Your task to perform on an android device: Search for Italian restaurants on Maps Image 0: 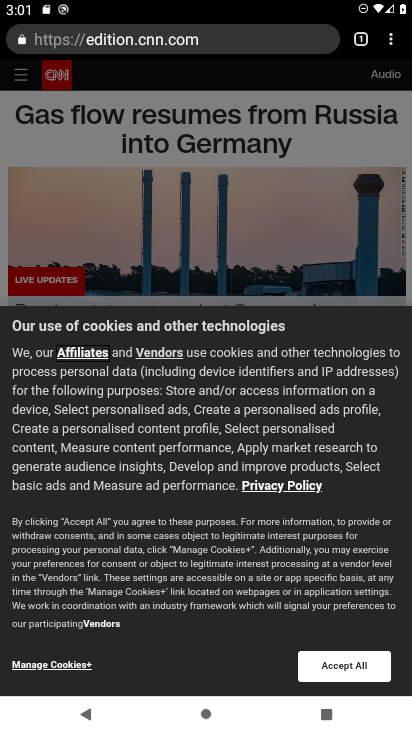
Step 0: press home button
Your task to perform on an android device: Search for Italian restaurants on Maps Image 1: 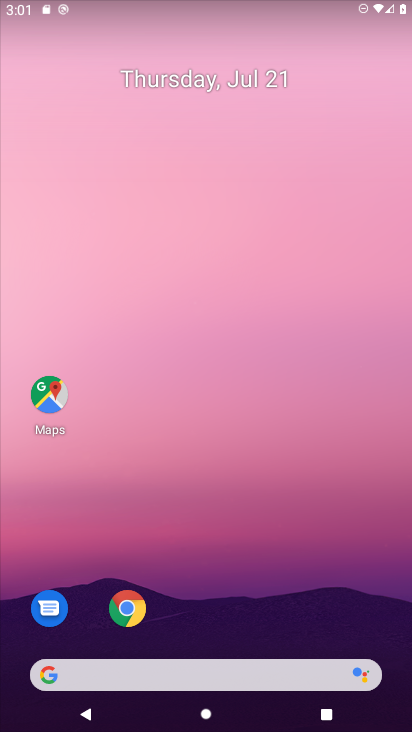
Step 1: click (51, 411)
Your task to perform on an android device: Search for Italian restaurants on Maps Image 2: 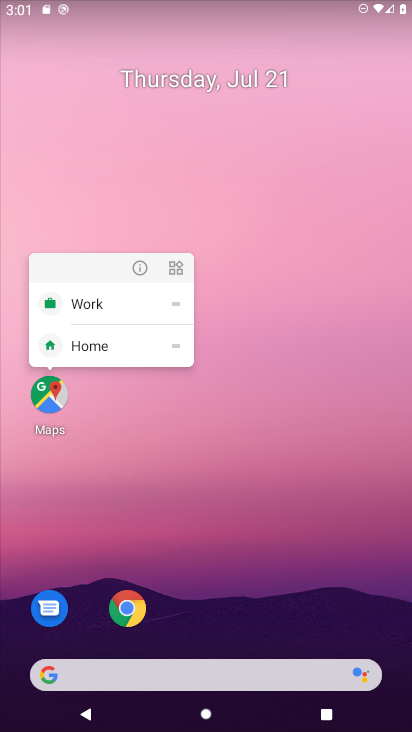
Step 2: click (51, 411)
Your task to perform on an android device: Search for Italian restaurants on Maps Image 3: 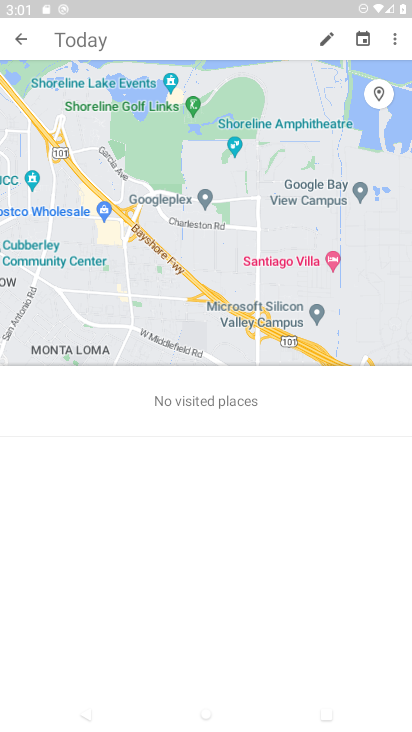
Step 3: click (20, 32)
Your task to perform on an android device: Search for Italian restaurants on Maps Image 4: 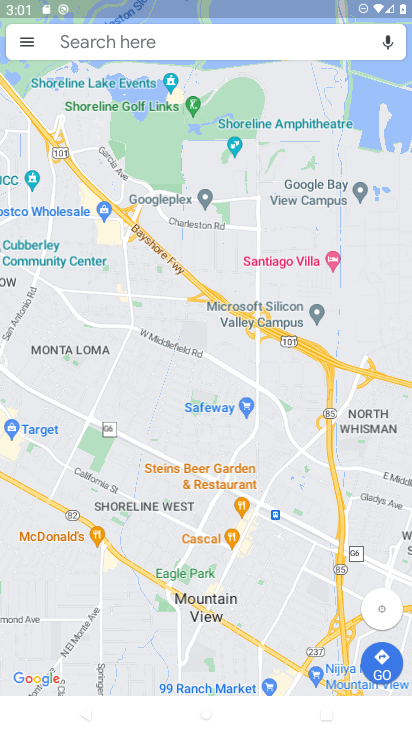
Step 4: click (78, 40)
Your task to perform on an android device: Search for Italian restaurants on Maps Image 5: 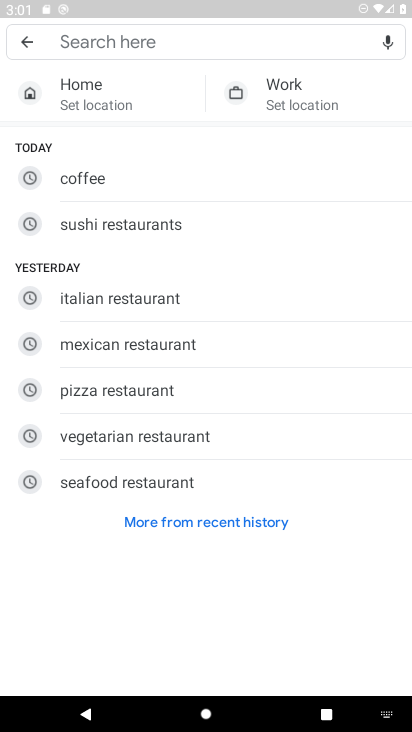
Step 5: click (125, 306)
Your task to perform on an android device: Search for Italian restaurants on Maps Image 6: 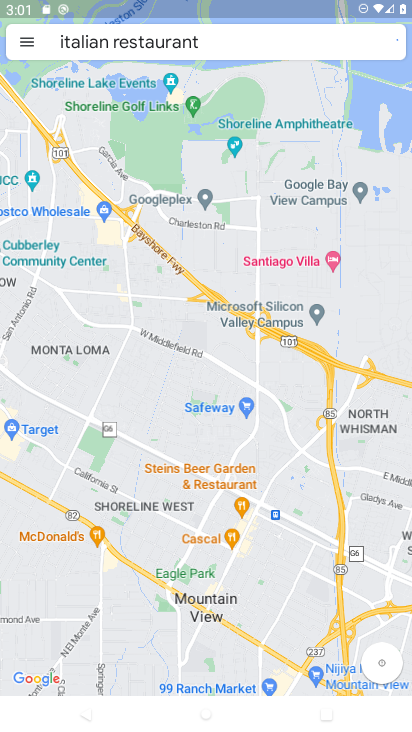
Step 6: task complete